Your task to perform on an android device: Go to wifi settings Image 0: 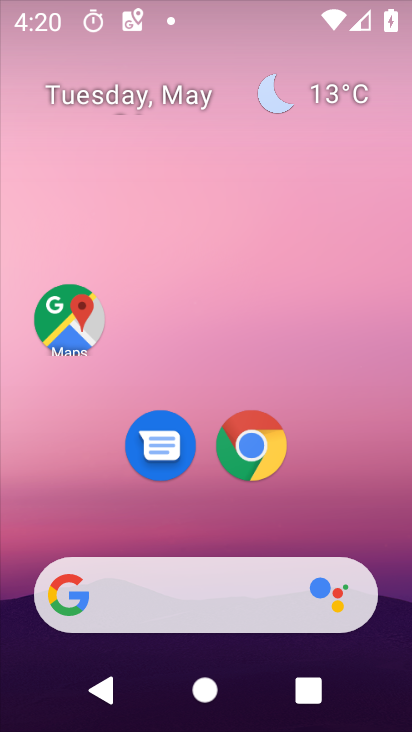
Step 0: press home button
Your task to perform on an android device: Go to wifi settings Image 1: 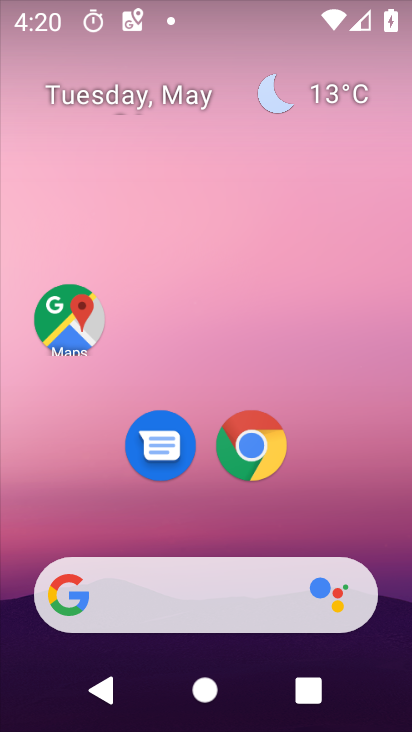
Step 1: drag from (212, 527) to (247, 82)
Your task to perform on an android device: Go to wifi settings Image 2: 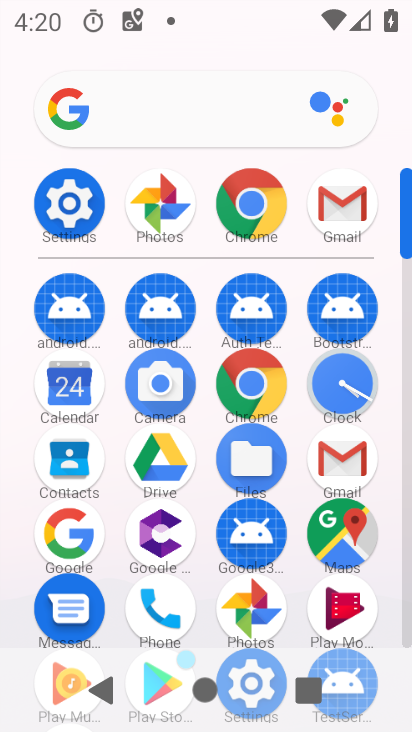
Step 2: click (66, 196)
Your task to perform on an android device: Go to wifi settings Image 3: 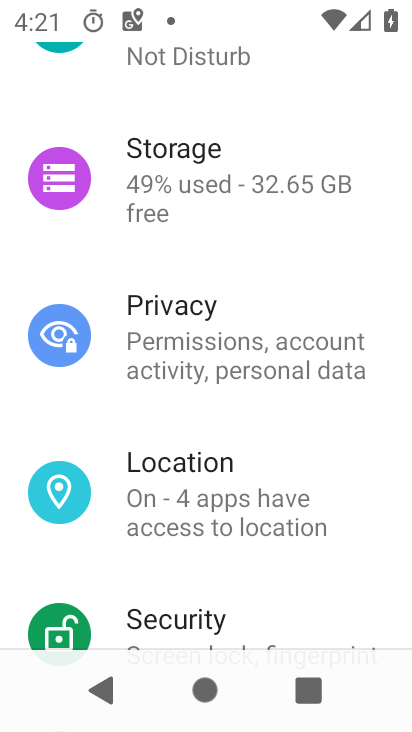
Step 3: drag from (192, 116) to (199, 728)
Your task to perform on an android device: Go to wifi settings Image 4: 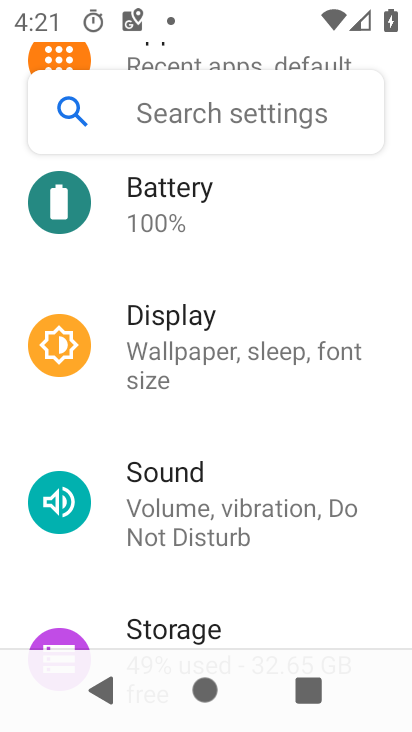
Step 4: drag from (191, 237) to (195, 643)
Your task to perform on an android device: Go to wifi settings Image 5: 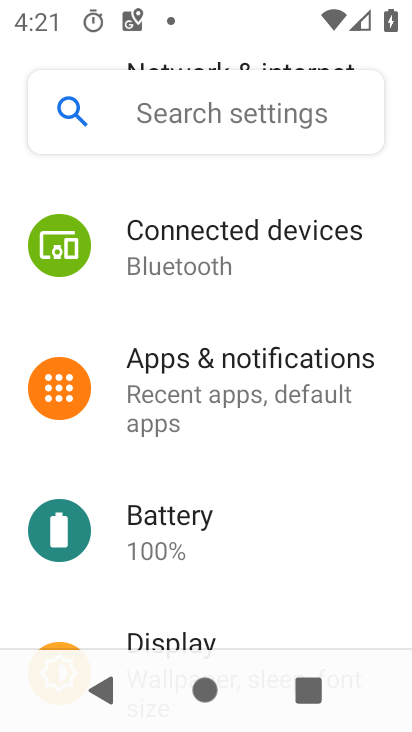
Step 5: drag from (174, 217) to (218, 635)
Your task to perform on an android device: Go to wifi settings Image 6: 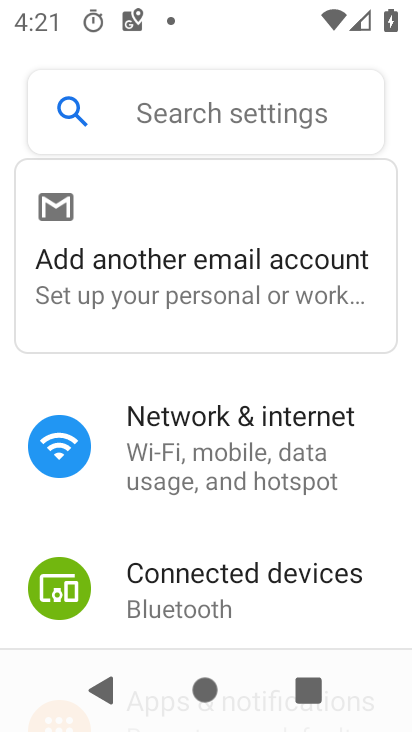
Step 6: click (171, 457)
Your task to perform on an android device: Go to wifi settings Image 7: 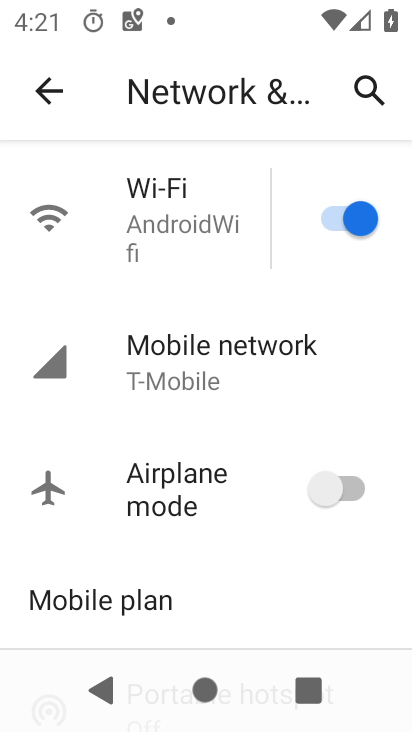
Step 7: click (193, 234)
Your task to perform on an android device: Go to wifi settings Image 8: 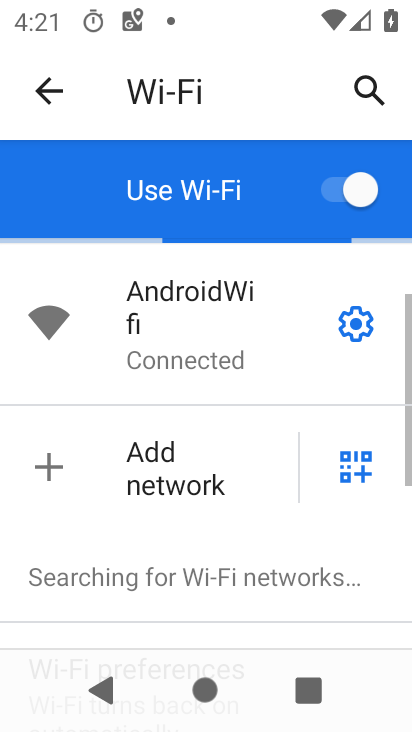
Step 8: task complete